Your task to perform on an android device: Is it going to rain tomorrow? Image 0: 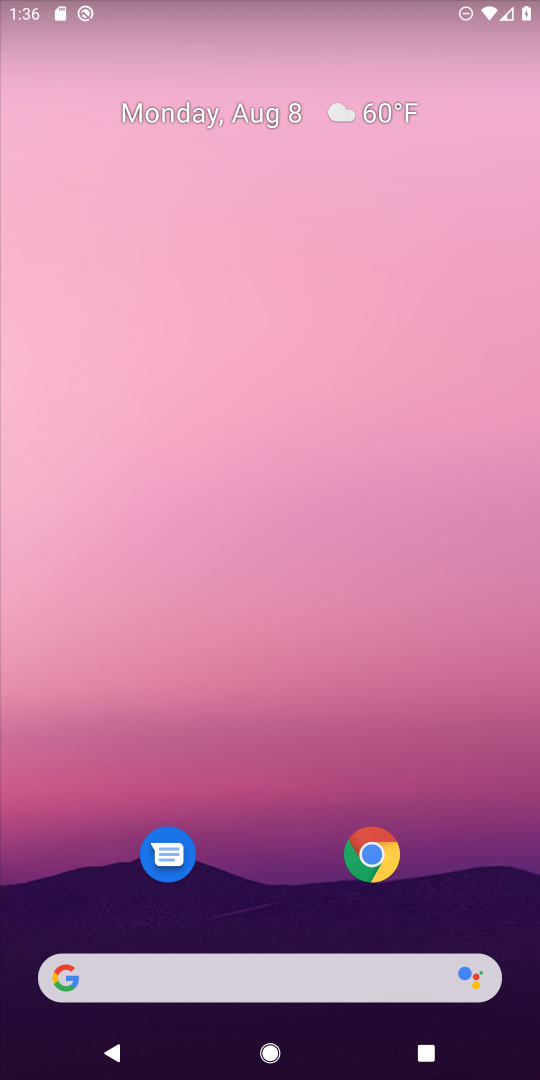
Step 0: press home button
Your task to perform on an android device: Is it going to rain tomorrow? Image 1: 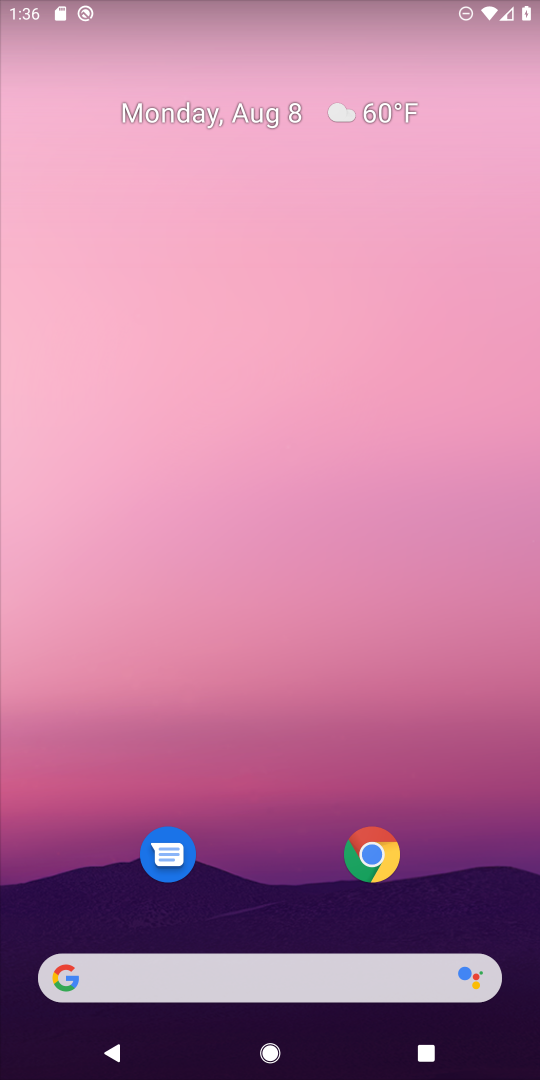
Step 1: click (62, 974)
Your task to perform on an android device: Is it going to rain tomorrow? Image 2: 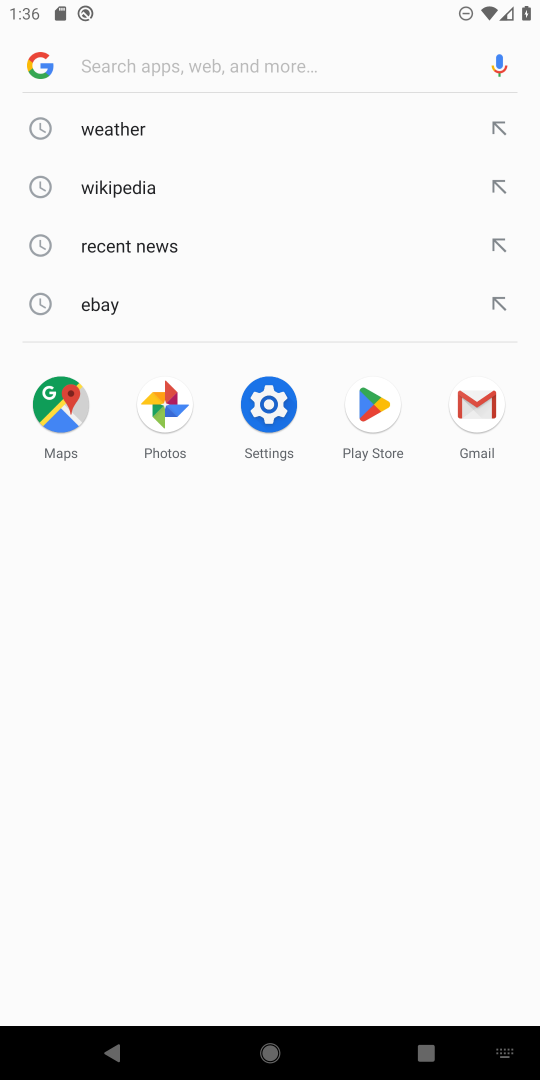
Step 2: type "Is it going to rain tomorrow?"
Your task to perform on an android device: Is it going to rain tomorrow? Image 3: 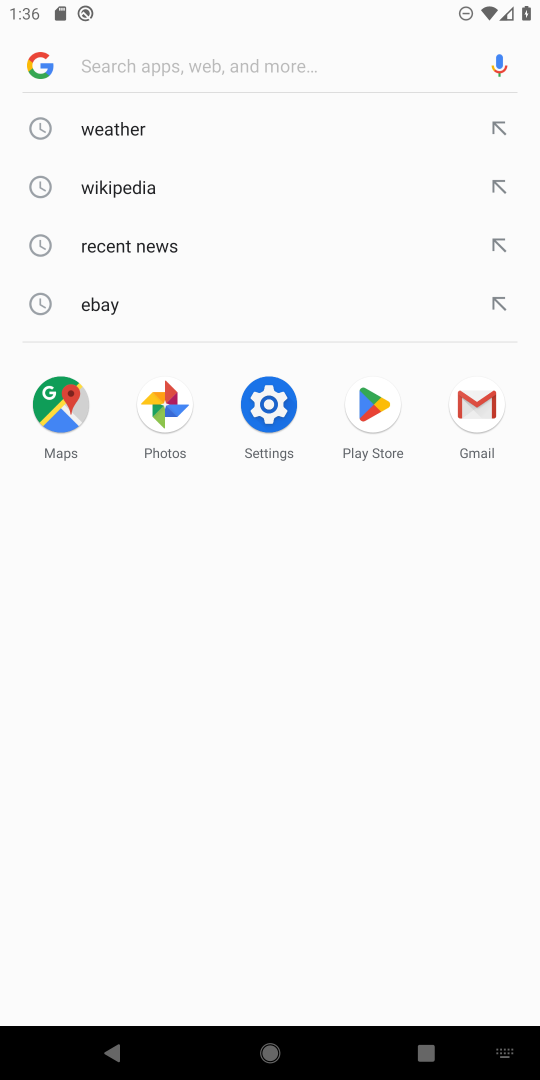
Step 3: click (200, 64)
Your task to perform on an android device: Is it going to rain tomorrow? Image 4: 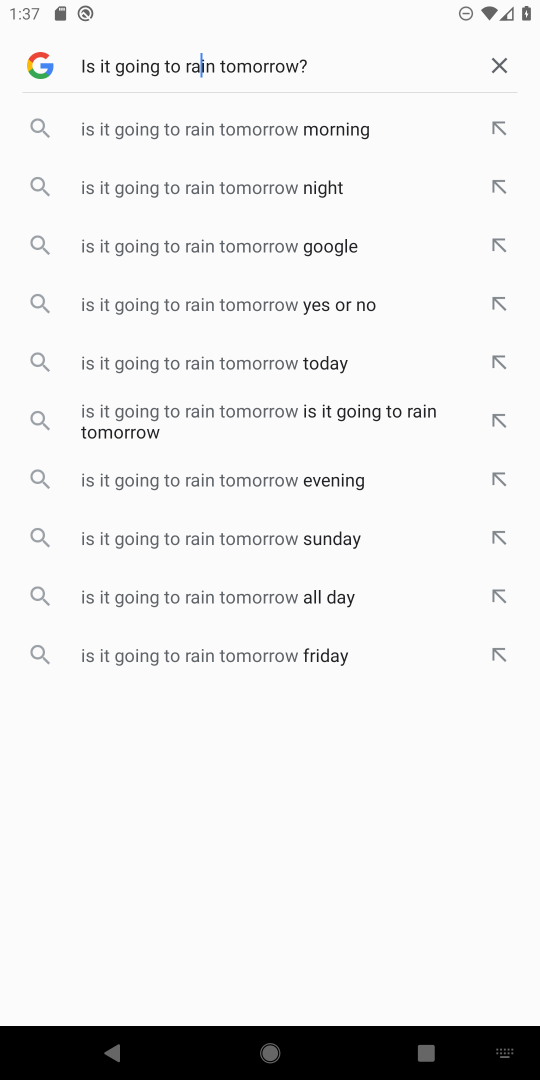
Step 4: press enter
Your task to perform on an android device: Is it going to rain tomorrow? Image 5: 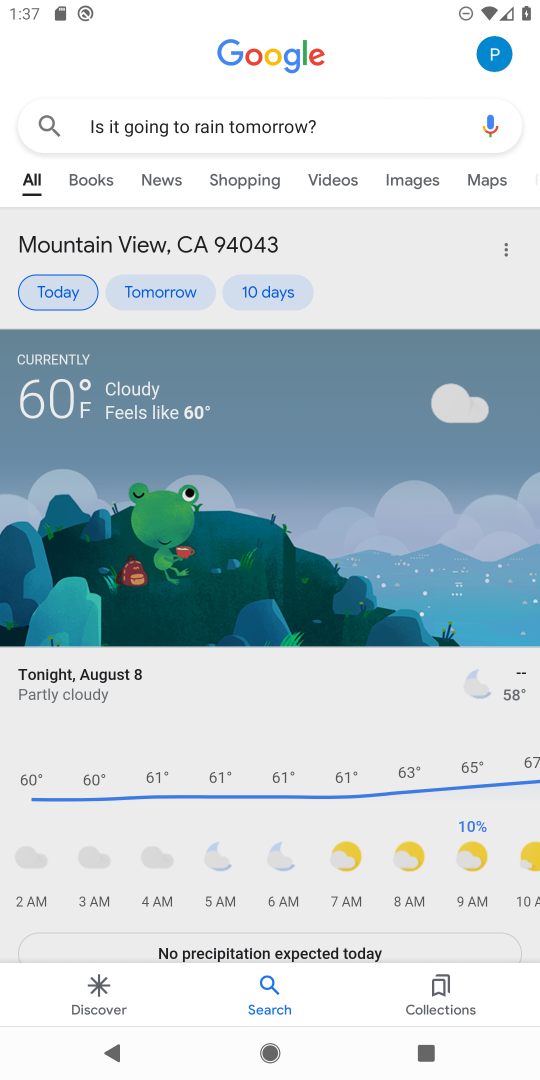
Step 5: task complete